Your task to perform on an android device: Open my contact list Image 0: 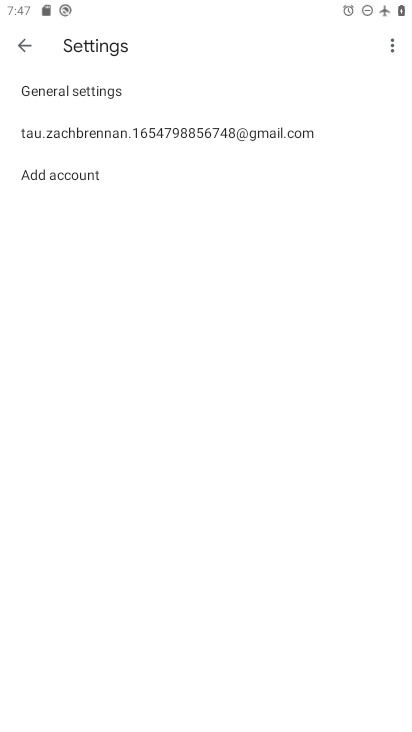
Step 0: press home button
Your task to perform on an android device: Open my contact list Image 1: 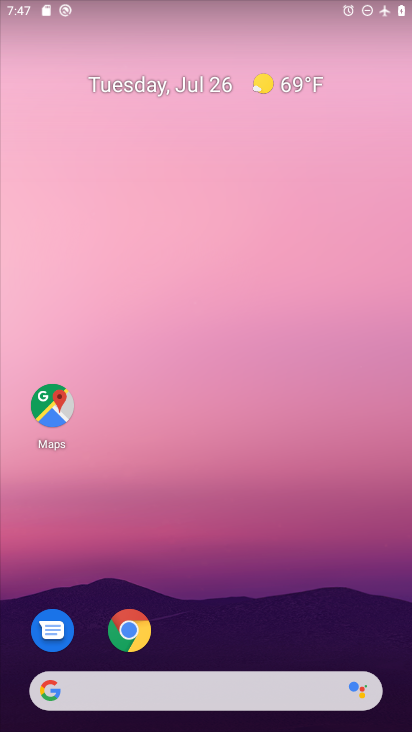
Step 1: drag from (239, 587) to (212, 90)
Your task to perform on an android device: Open my contact list Image 2: 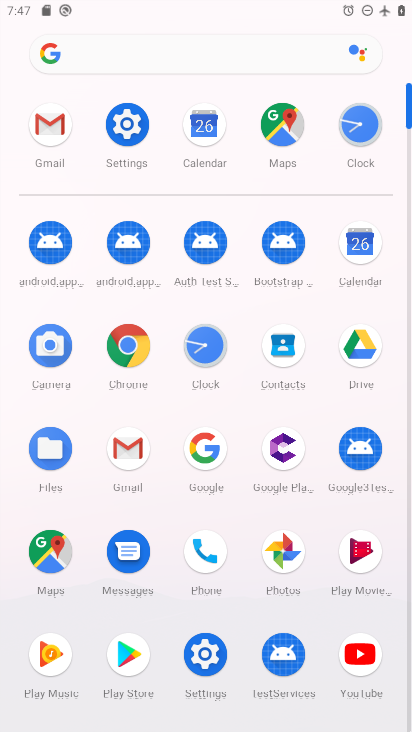
Step 2: click (288, 357)
Your task to perform on an android device: Open my contact list Image 3: 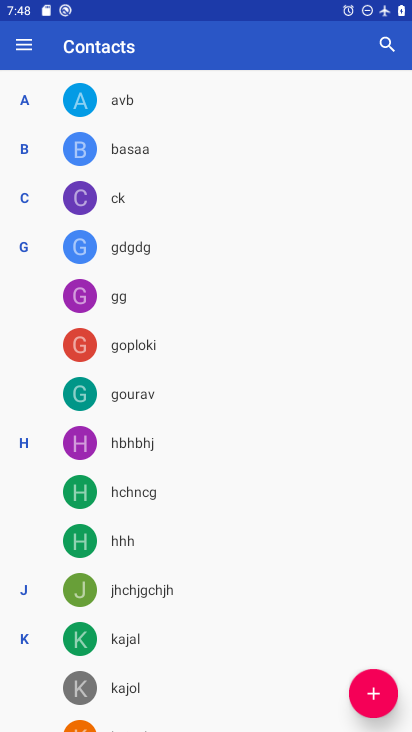
Step 3: task complete